Your task to perform on an android device: Go to Android settings Image 0: 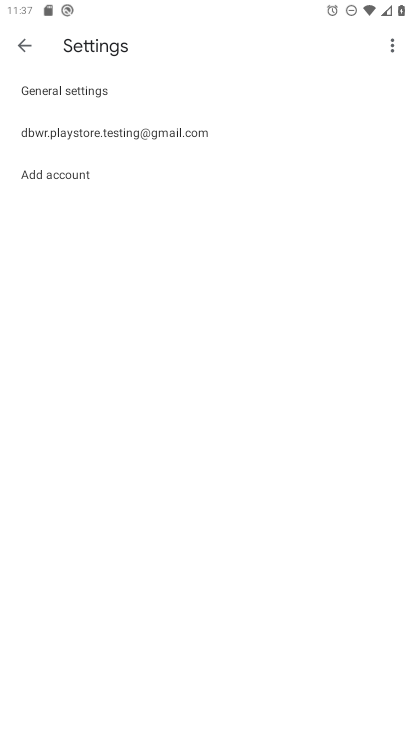
Step 0: press home button
Your task to perform on an android device: Go to Android settings Image 1: 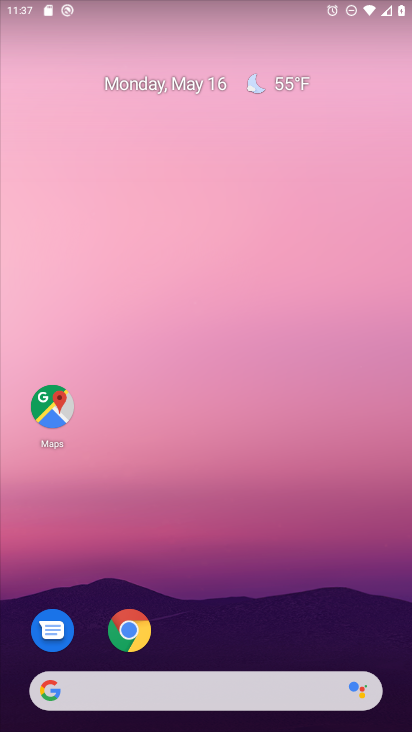
Step 1: drag from (223, 649) to (230, 206)
Your task to perform on an android device: Go to Android settings Image 2: 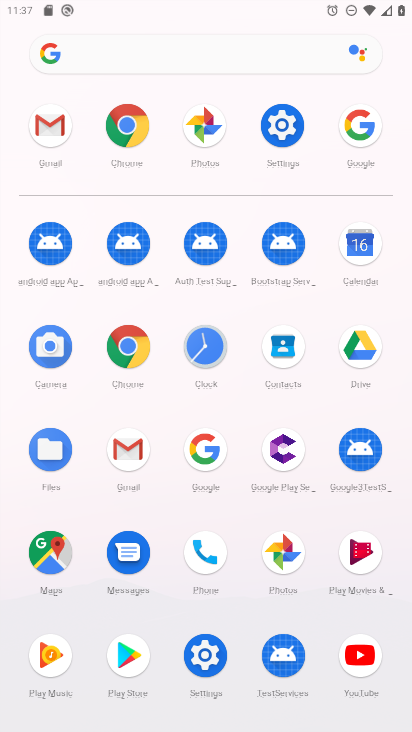
Step 2: click (278, 143)
Your task to perform on an android device: Go to Android settings Image 3: 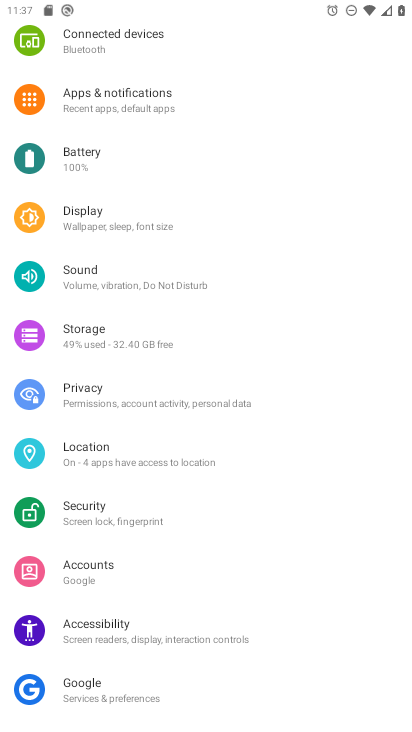
Step 3: task complete